Your task to perform on an android device: change your default location settings in chrome Image 0: 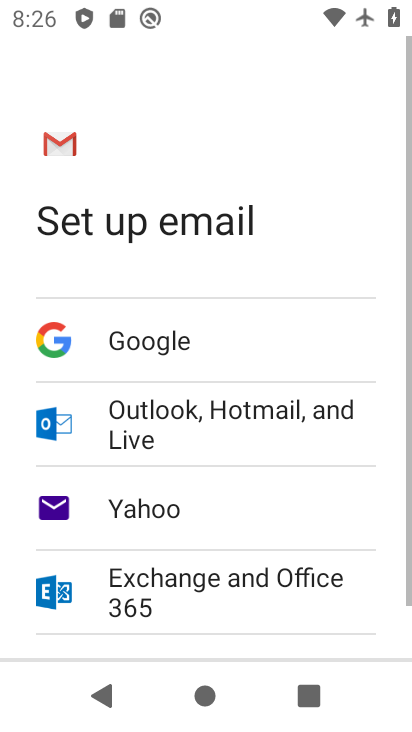
Step 0: press home button
Your task to perform on an android device: change your default location settings in chrome Image 1: 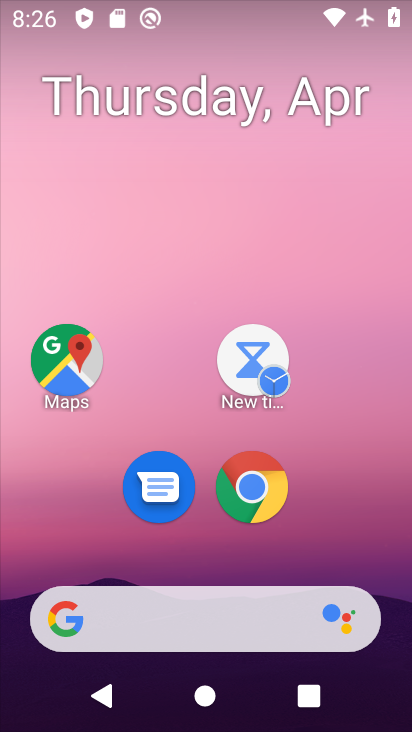
Step 1: click (264, 495)
Your task to perform on an android device: change your default location settings in chrome Image 2: 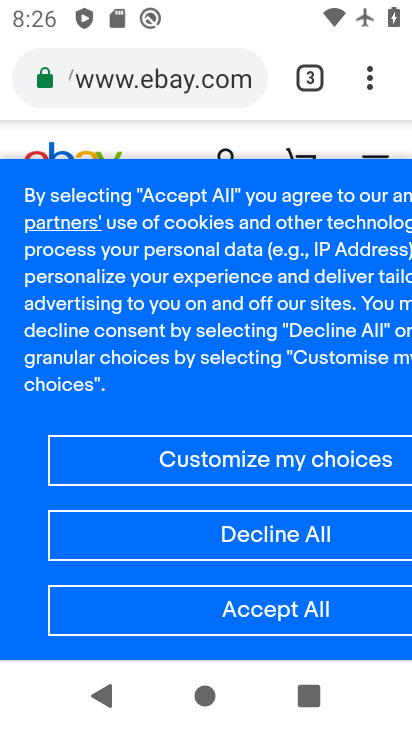
Step 2: drag from (372, 73) to (135, 545)
Your task to perform on an android device: change your default location settings in chrome Image 3: 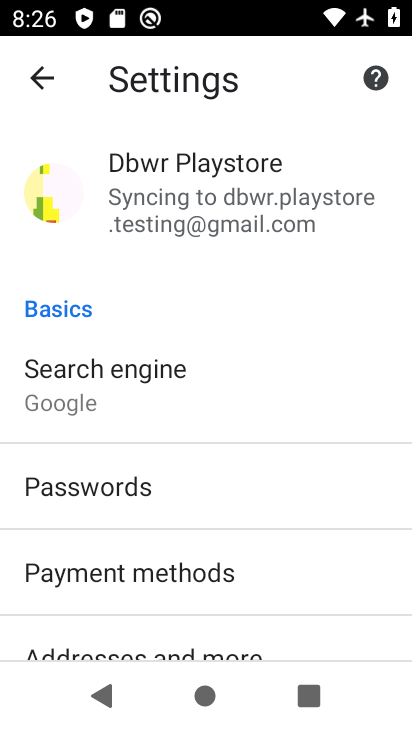
Step 3: drag from (208, 621) to (231, 360)
Your task to perform on an android device: change your default location settings in chrome Image 4: 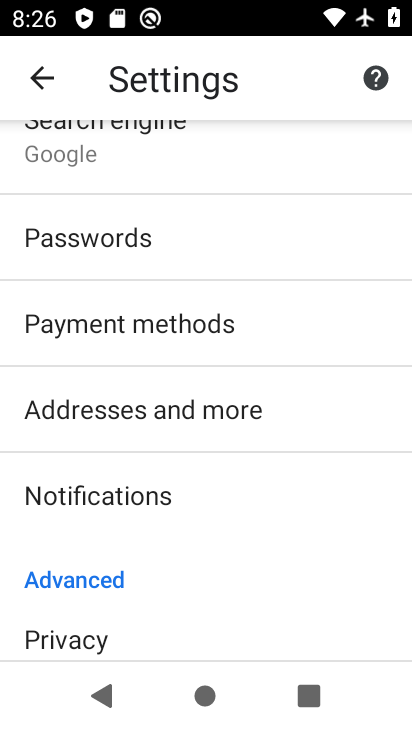
Step 4: drag from (149, 549) to (209, 275)
Your task to perform on an android device: change your default location settings in chrome Image 5: 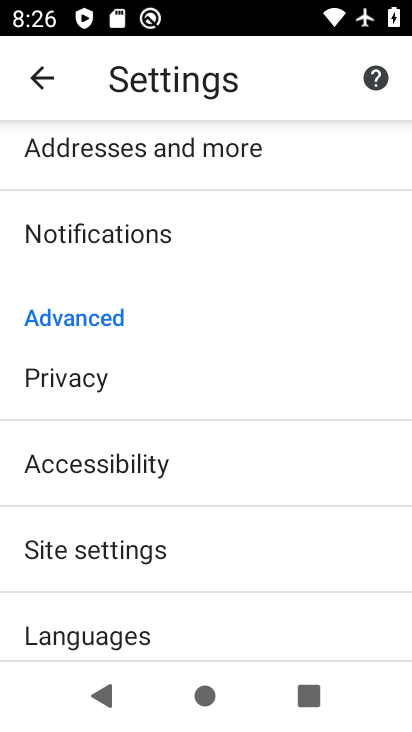
Step 5: click (99, 545)
Your task to perform on an android device: change your default location settings in chrome Image 6: 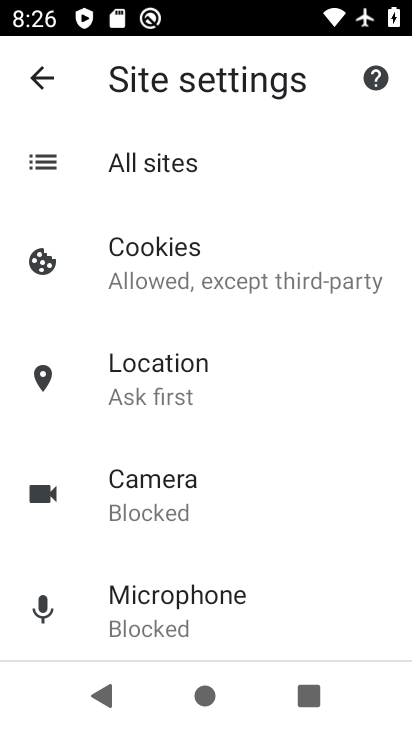
Step 6: click (148, 385)
Your task to perform on an android device: change your default location settings in chrome Image 7: 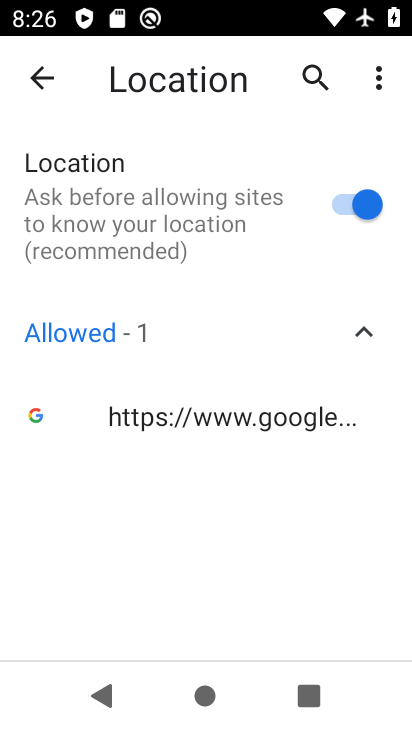
Step 7: click (368, 201)
Your task to perform on an android device: change your default location settings in chrome Image 8: 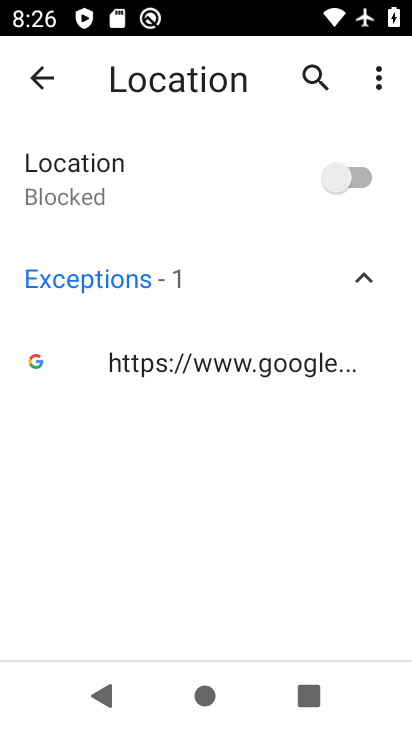
Step 8: task complete